Your task to perform on an android device: Open Youtube and go to the subscriptions tab Image 0: 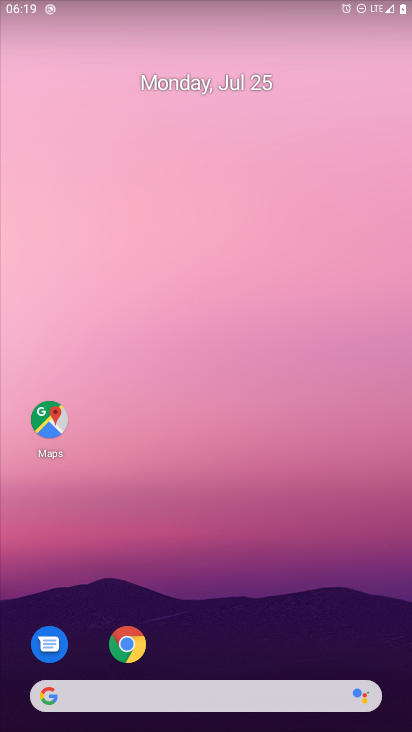
Step 0: drag from (282, 664) to (294, 179)
Your task to perform on an android device: Open Youtube and go to the subscriptions tab Image 1: 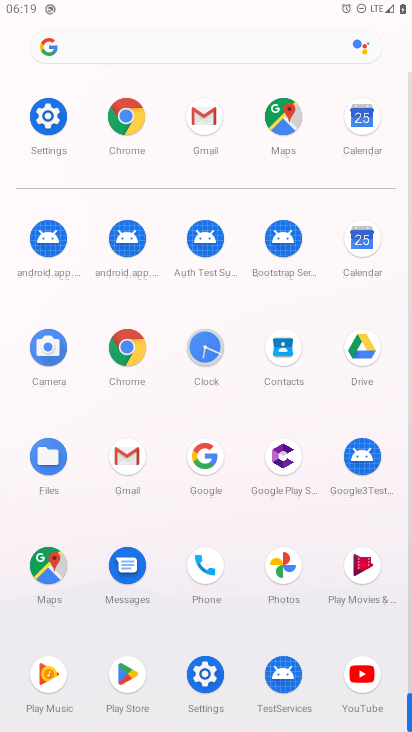
Step 1: click (365, 676)
Your task to perform on an android device: Open Youtube and go to the subscriptions tab Image 2: 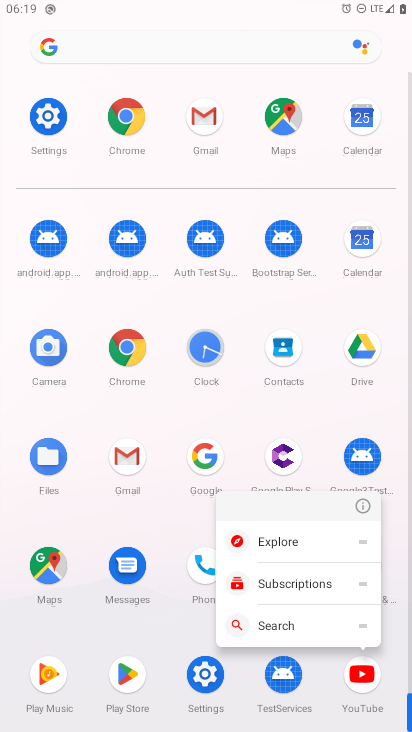
Step 2: click (365, 687)
Your task to perform on an android device: Open Youtube and go to the subscriptions tab Image 3: 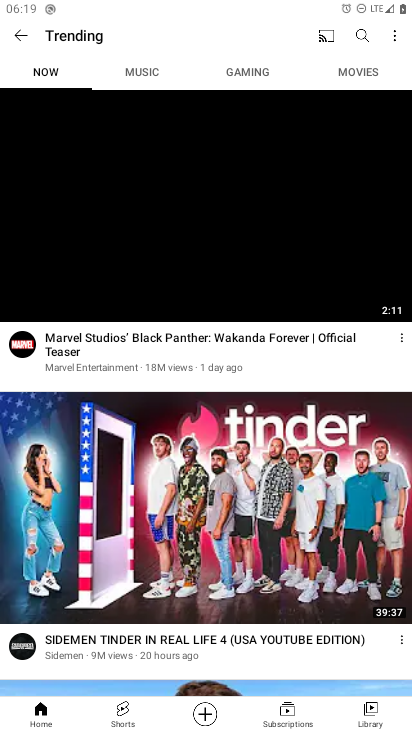
Step 3: click (295, 706)
Your task to perform on an android device: Open Youtube and go to the subscriptions tab Image 4: 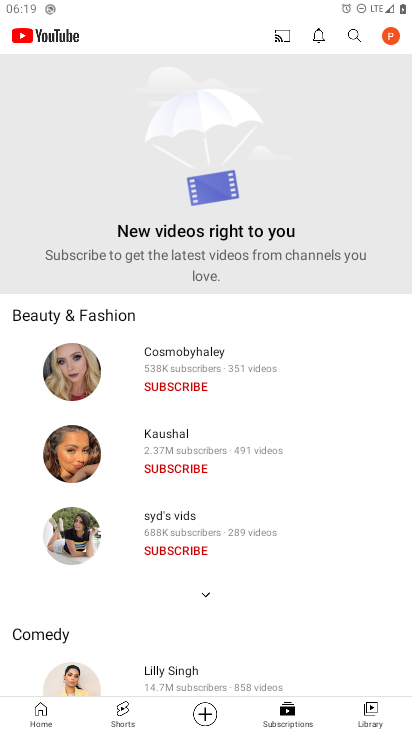
Step 4: task complete